Your task to perform on an android device: Open the calendar app, open the side menu, and click the "Day" option Image 0: 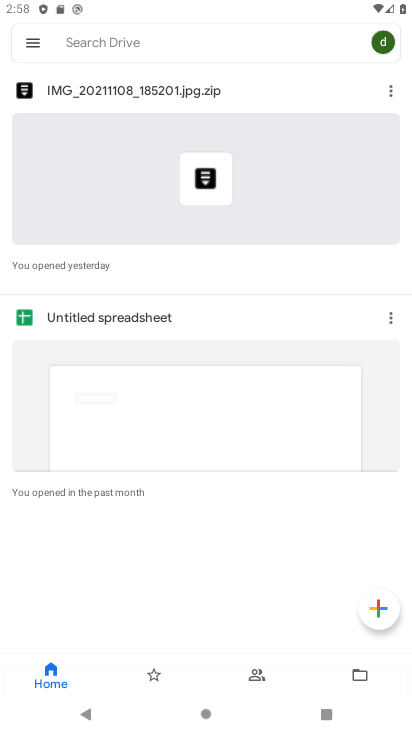
Step 0: press back button
Your task to perform on an android device: Open the calendar app, open the side menu, and click the "Day" option Image 1: 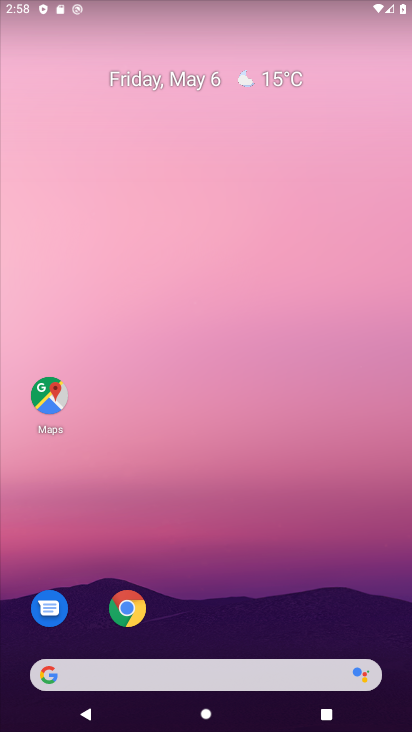
Step 1: drag from (181, 637) to (293, 148)
Your task to perform on an android device: Open the calendar app, open the side menu, and click the "Day" option Image 2: 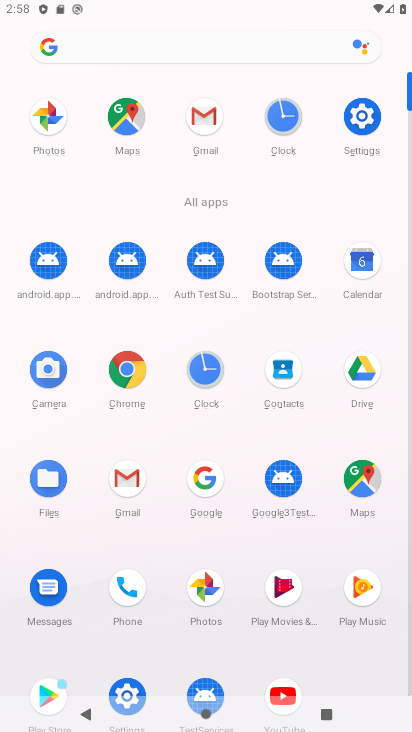
Step 2: click (364, 265)
Your task to perform on an android device: Open the calendar app, open the side menu, and click the "Day" option Image 3: 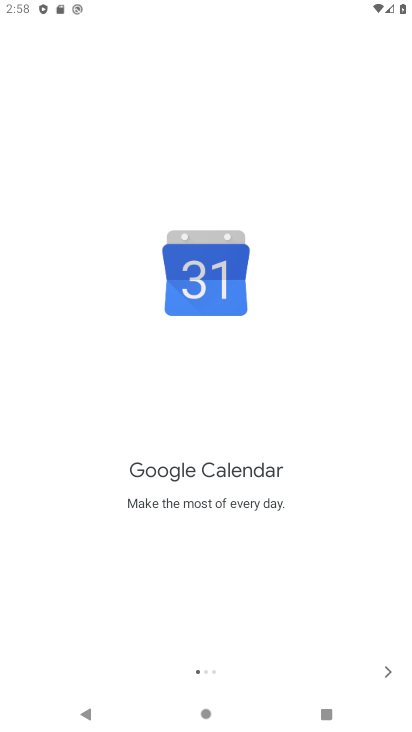
Step 3: click (392, 671)
Your task to perform on an android device: Open the calendar app, open the side menu, and click the "Day" option Image 4: 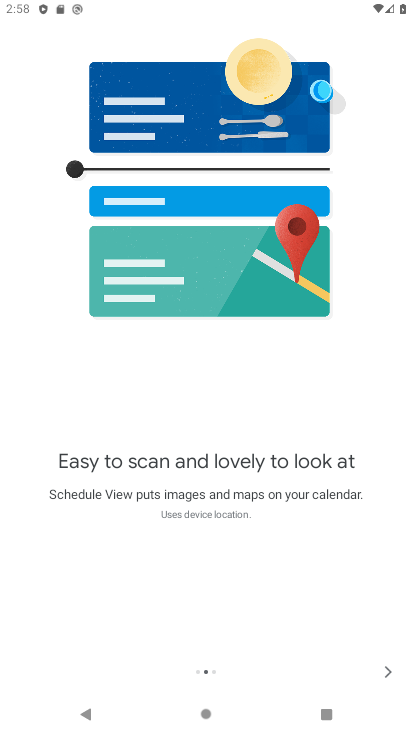
Step 4: click (392, 671)
Your task to perform on an android device: Open the calendar app, open the side menu, and click the "Day" option Image 5: 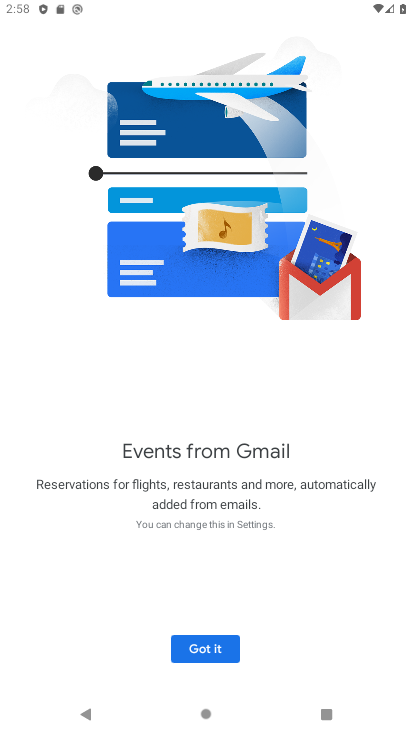
Step 5: click (214, 639)
Your task to perform on an android device: Open the calendar app, open the side menu, and click the "Day" option Image 6: 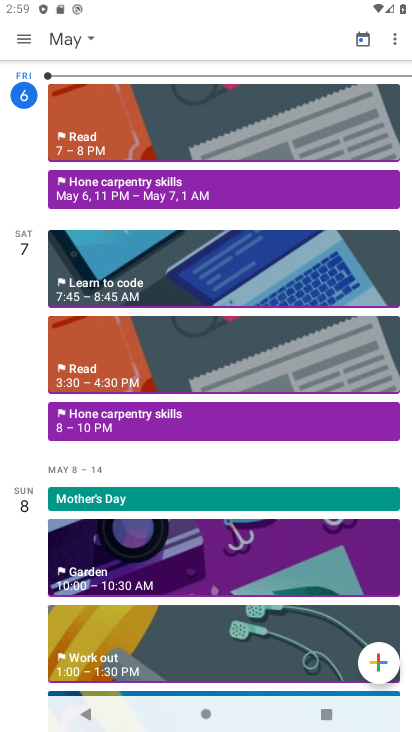
Step 6: click (27, 39)
Your task to perform on an android device: Open the calendar app, open the side menu, and click the "Day" option Image 7: 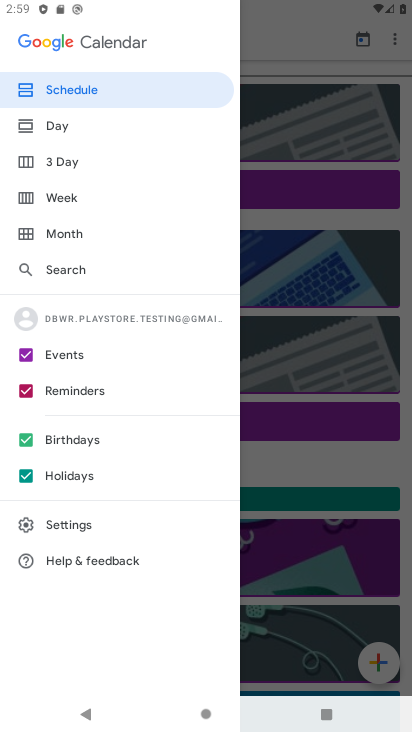
Step 7: click (60, 124)
Your task to perform on an android device: Open the calendar app, open the side menu, and click the "Day" option Image 8: 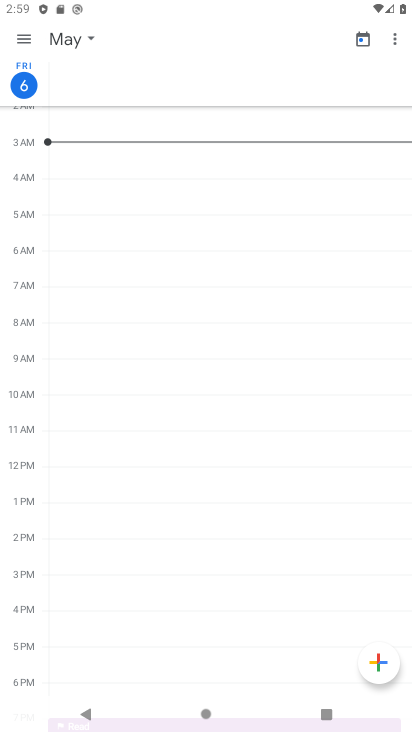
Step 8: task complete